Your task to perform on an android device: turn on the 12-hour format for clock Image 0: 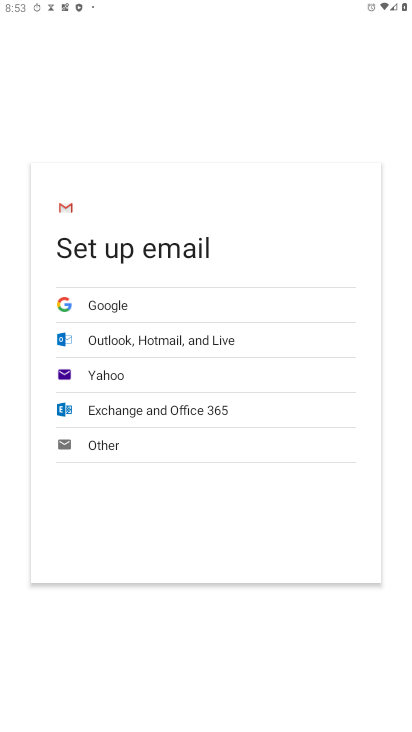
Step 0: click (398, 366)
Your task to perform on an android device: turn on the 12-hour format for clock Image 1: 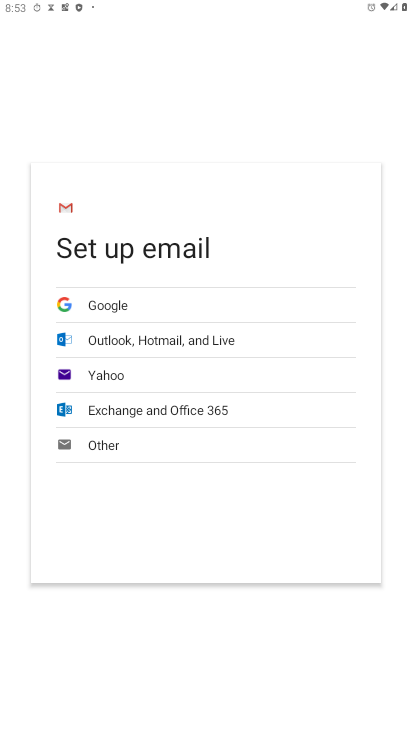
Step 1: press home button
Your task to perform on an android device: turn on the 12-hour format for clock Image 2: 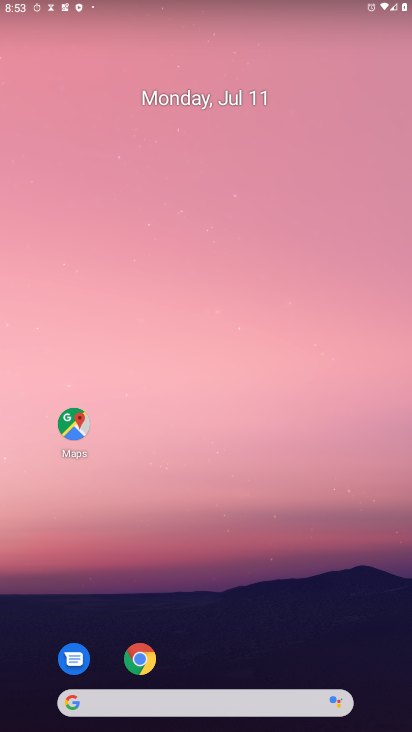
Step 2: drag from (217, 488) to (315, 177)
Your task to perform on an android device: turn on the 12-hour format for clock Image 3: 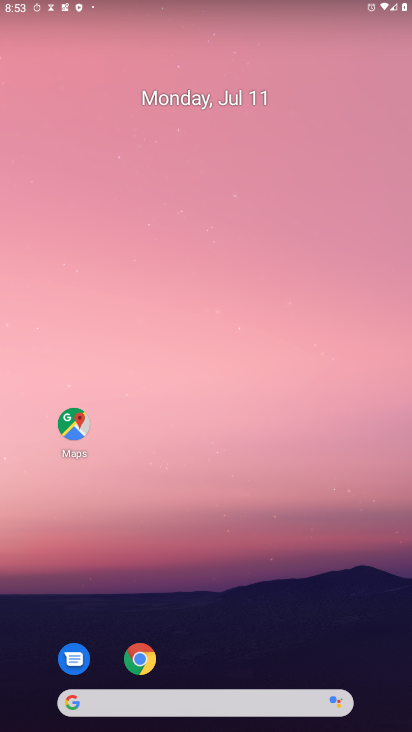
Step 3: drag from (189, 659) to (241, 301)
Your task to perform on an android device: turn on the 12-hour format for clock Image 4: 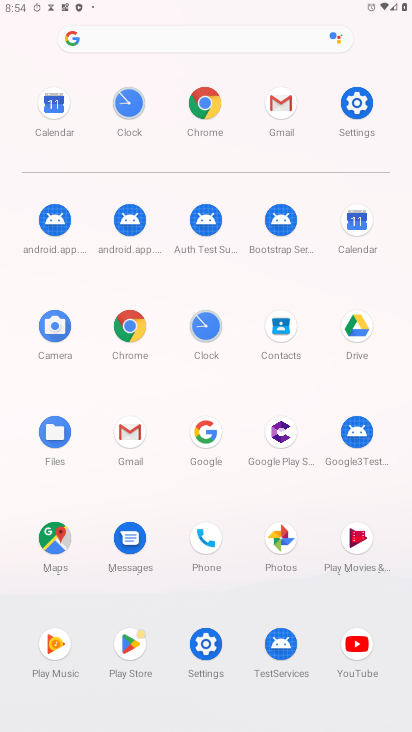
Step 4: click (203, 325)
Your task to perform on an android device: turn on the 12-hour format for clock Image 5: 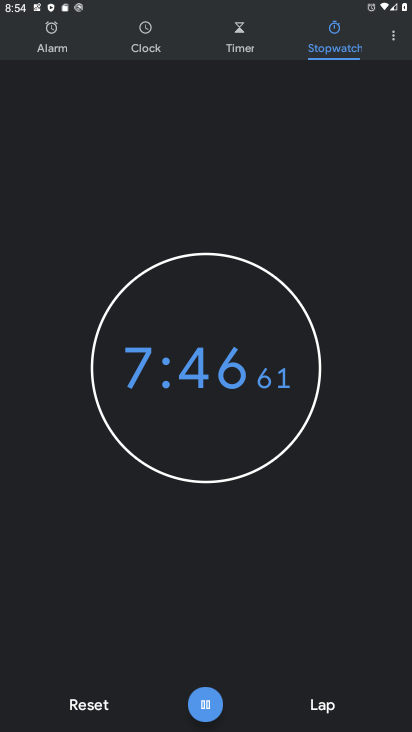
Step 5: press home button
Your task to perform on an android device: turn on the 12-hour format for clock Image 6: 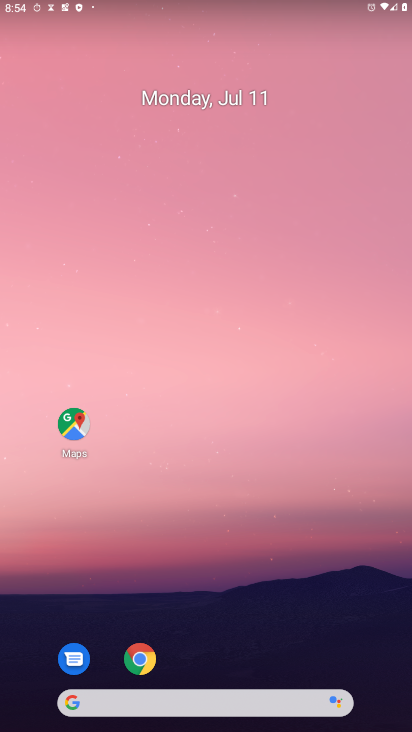
Step 6: drag from (224, 608) to (281, 154)
Your task to perform on an android device: turn on the 12-hour format for clock Image 7: 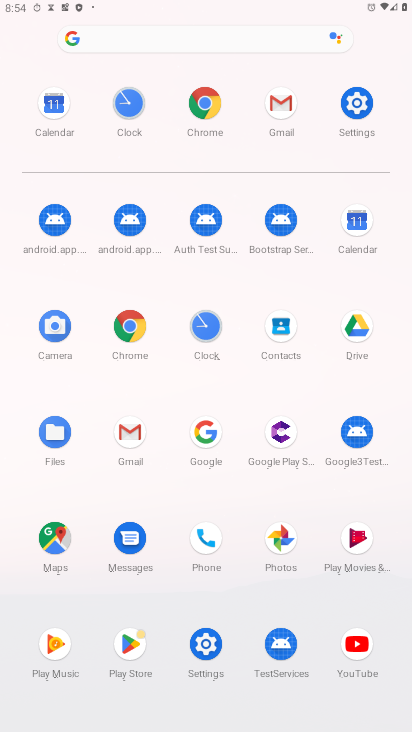
Step 7: click (208, 324)
Your task to perform on an android device: turn on the 12-hour format for clock Image 8: 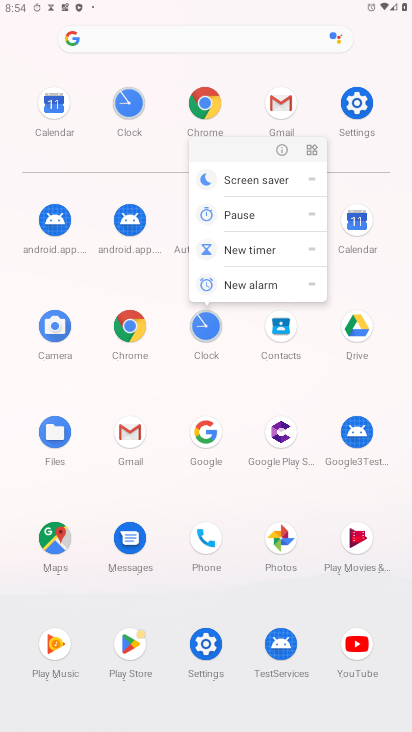
Step 8: click (282, 150)
Your task to perform on an android device: turn on the 12-hour format for clock Image 9: 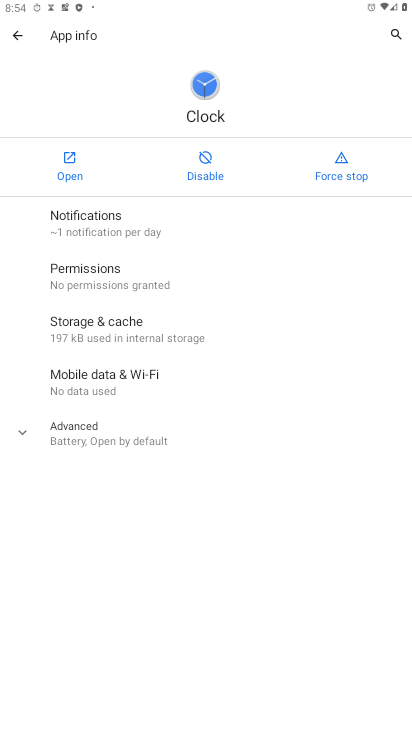
Step 9: click (68, 164)
Your task to perform on an android device: turn on the 12-hour format for clock Image 10: 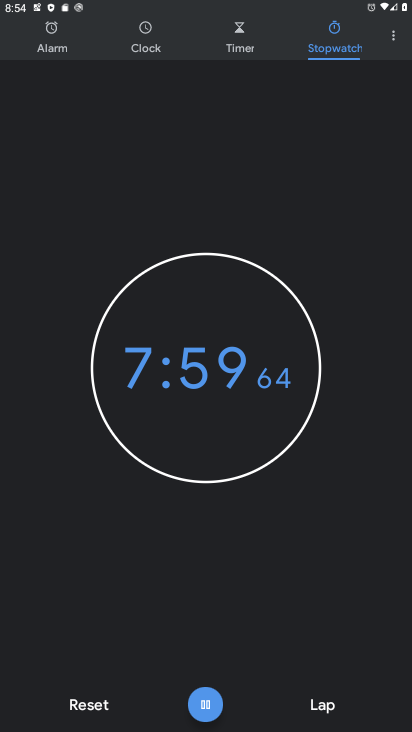
Step 10: click (398, 38)
Your task to perform on an android device: turn on the 12-hour format for clock Image 11: 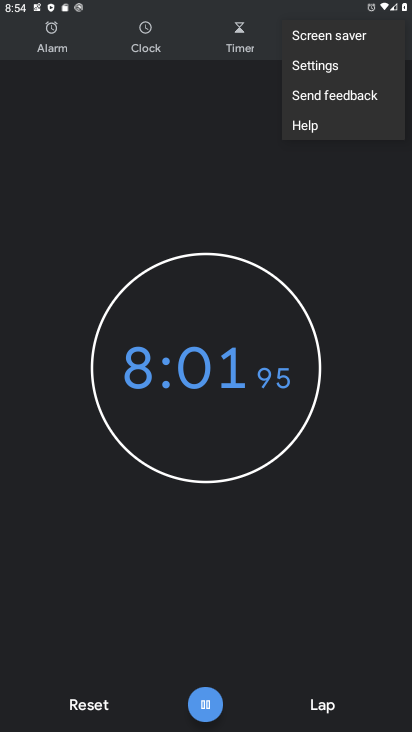
Step 11: click (318, 71)
Your task to perform on an android device: turn on the 12-hour format for clock Image 12: 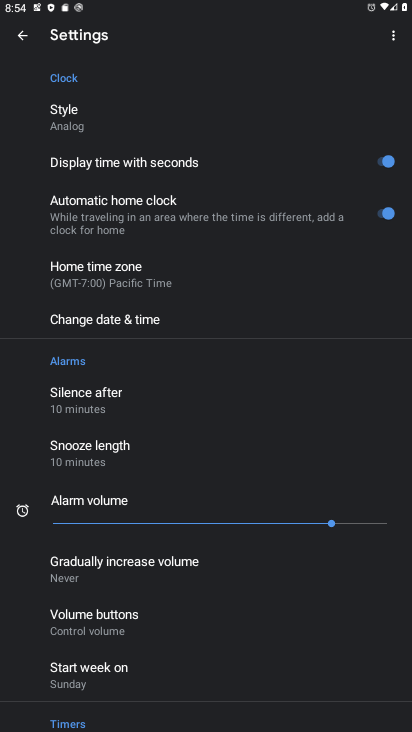
Step 12: click (358, 53)
Your task to perform on an android device: turn on the 12-hour format for clock Image 13: 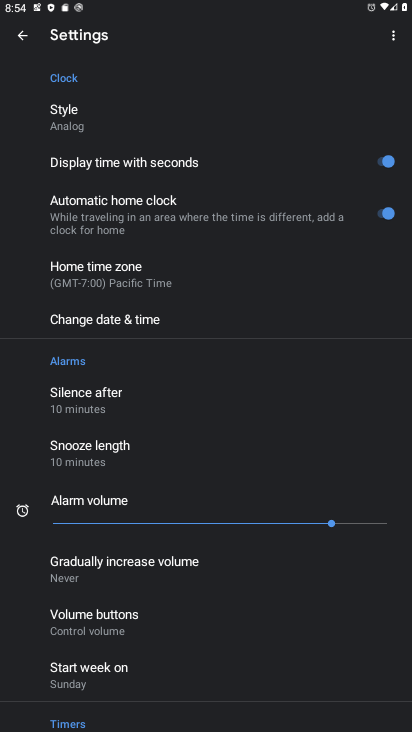
Step 13: click (162, 318)
Your task to perform on an android device: turn on the 12-hour format for clock Image 14: 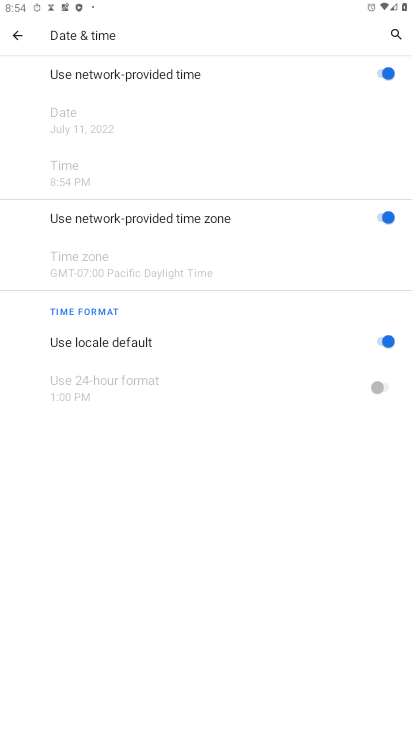
Step 14: task complete